Your task to perform on an android device: check google app version Image 0: 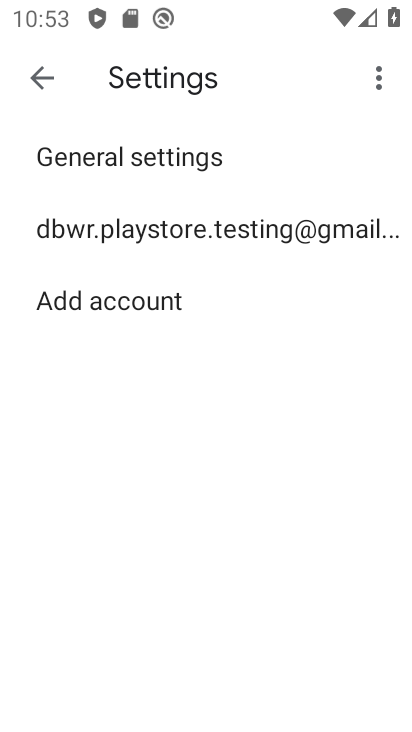
Step 0: press home button
Your task to perform on an android device: check google app version Image 1: 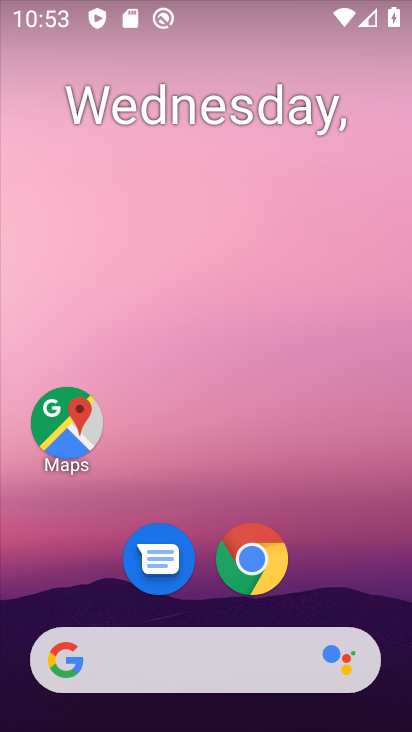
Step 1: drag from (362, 570) to (309, 226)
Your task to perform on an android device: check google app version Image 2: 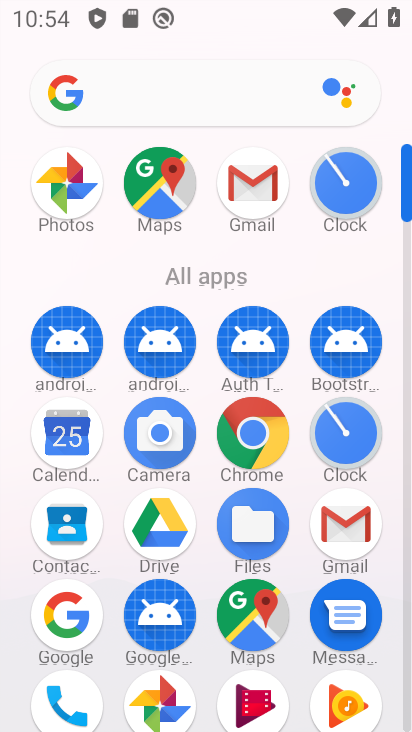
Step 2: click (258, 443)
Your task to perform on an android device: check google app version Image 3: 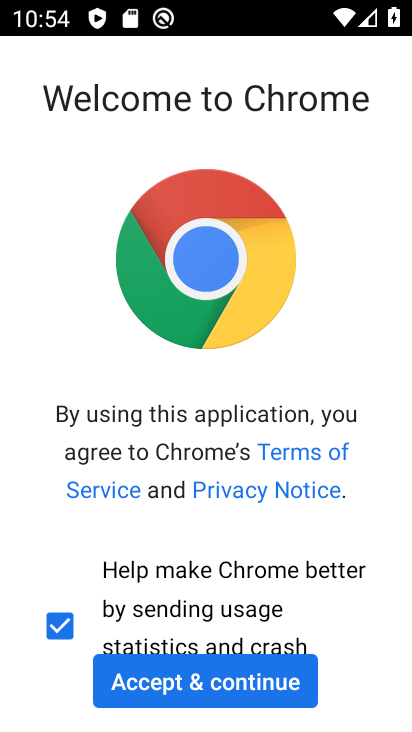
Step 3: click (255, 683)
Your task to perform on an android device: check google app version Image 4: 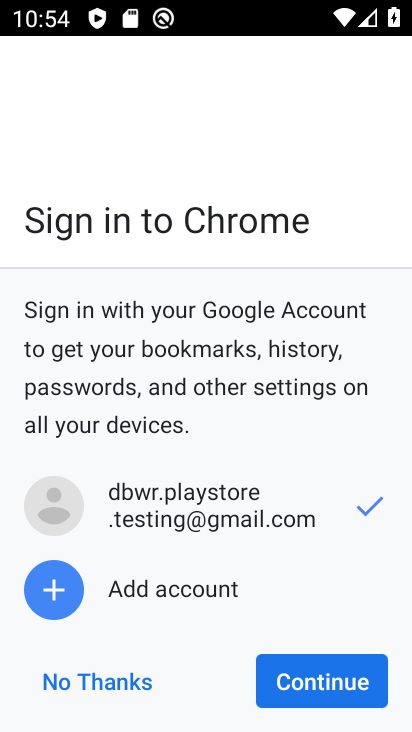
Step 4: click (263, 686)
Your task to perform on an android device: check google app version Image 5: 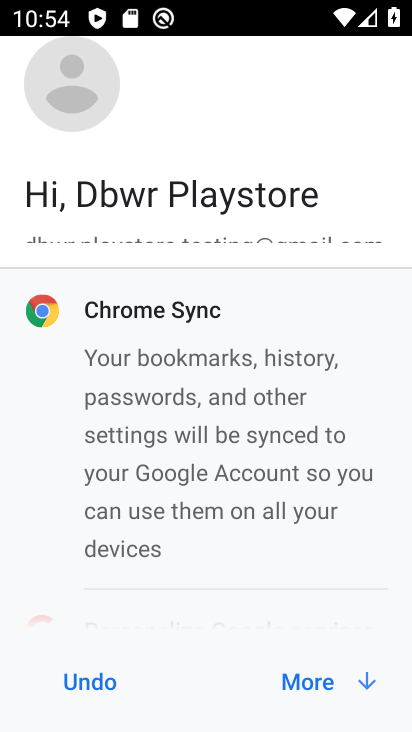
Step 5: click (312, 679)
Your task to perform on an android device: check google app version Image 6: 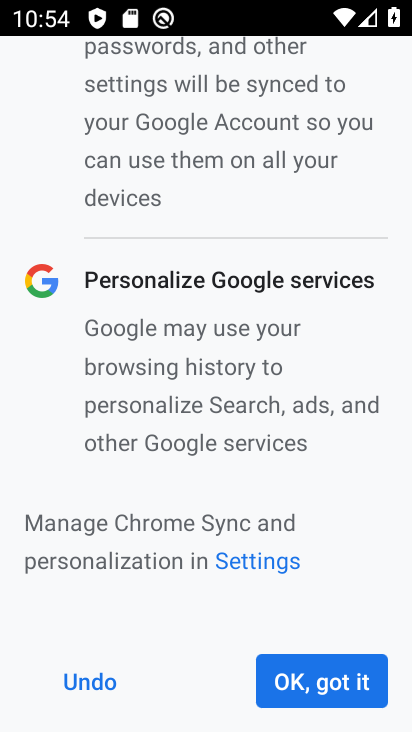
Step 6: click (312, 679)
Your task to perform on an android device: check google app version Image 7: 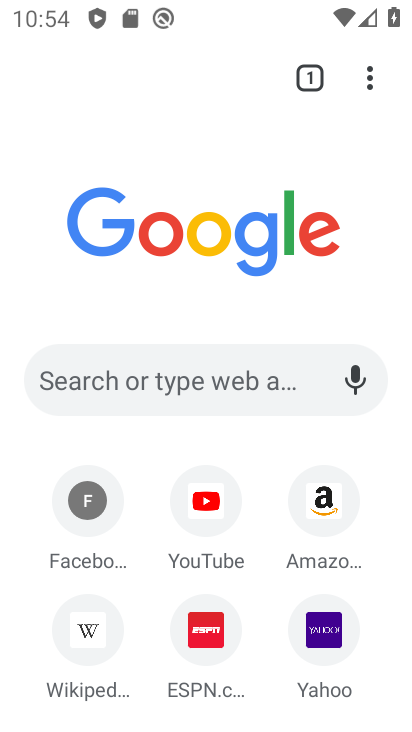
Step 7: click (375, 94)
Your task to perform on an android device: check google app version Image 8: 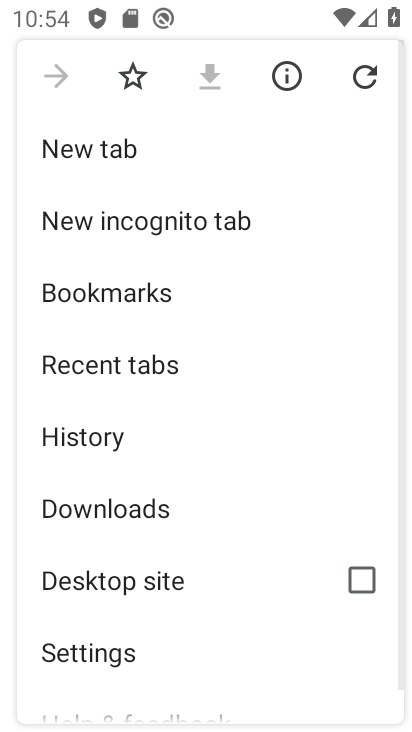
Step 8: drag from (180, 676) to (178, 226)
Your task to perform on an android device: check google app version Image 9: 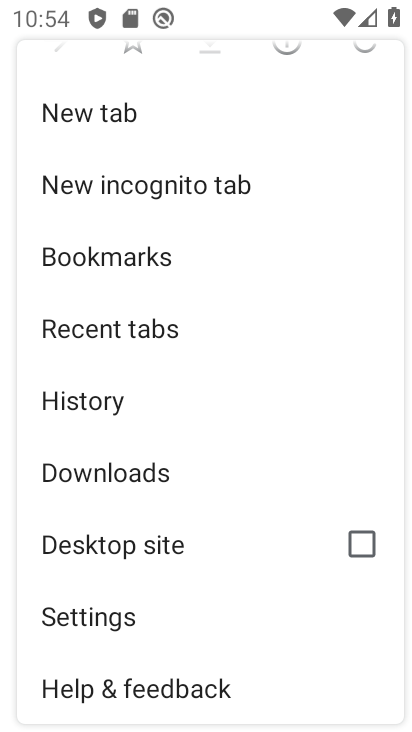
Step 9: click (199, 691)
Your task to perform on an android device: check google app version Image 10: 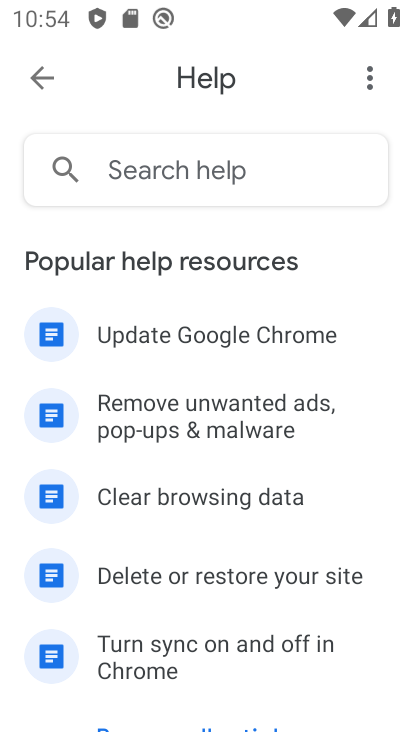
Step 10: click (377, 90)
Your task to perform on an android device: check google app version Image 11: 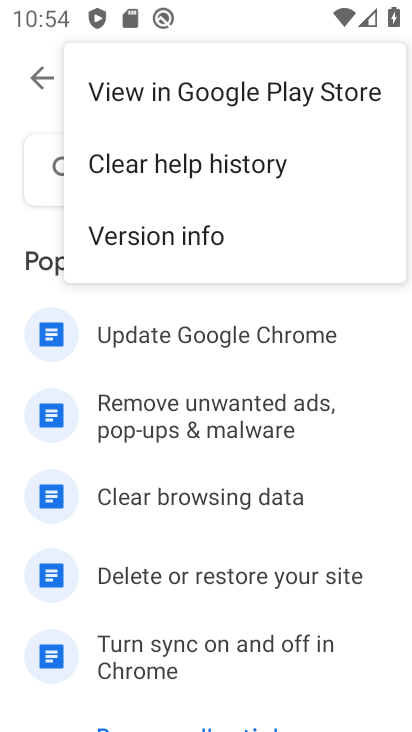
Step 11: click (245, 230)
Your task to perform on an android device: check google app version Image 12: 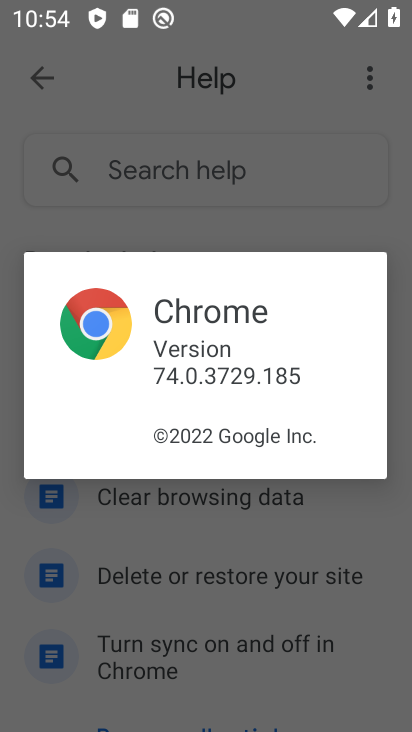
Step 12: task complete